Your task to perform on an android device: turn off data saver in the chrome app Image 0: 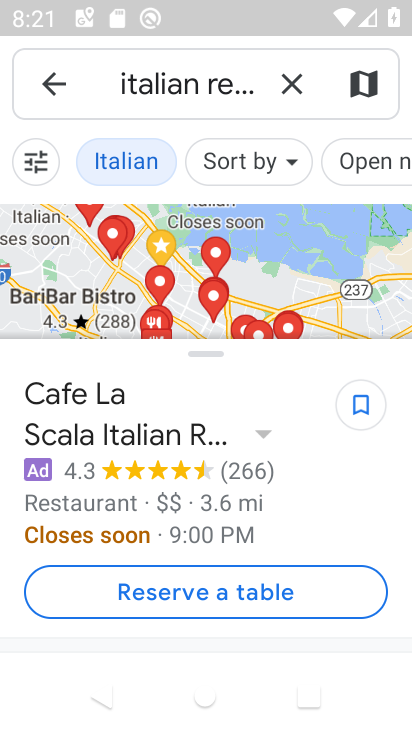
Step 0: press home button
Your task to perform on an android device: turn off data saver in the chrome app Image 1: 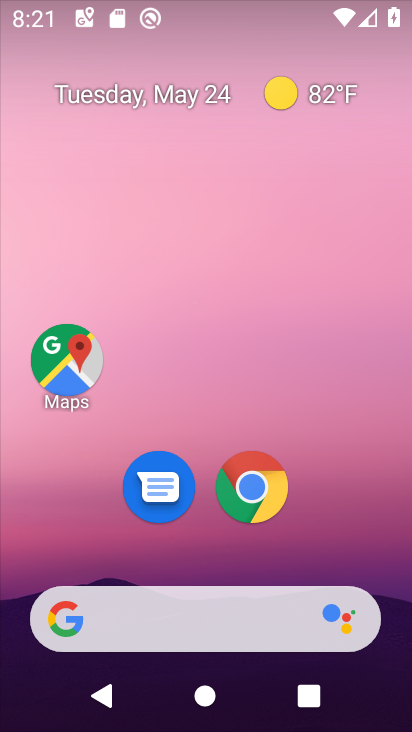
Step 1: drag from (393, 522) to (364, 174)
Your task to perform on an android device: turn off data saver in the chrome app Image 2: 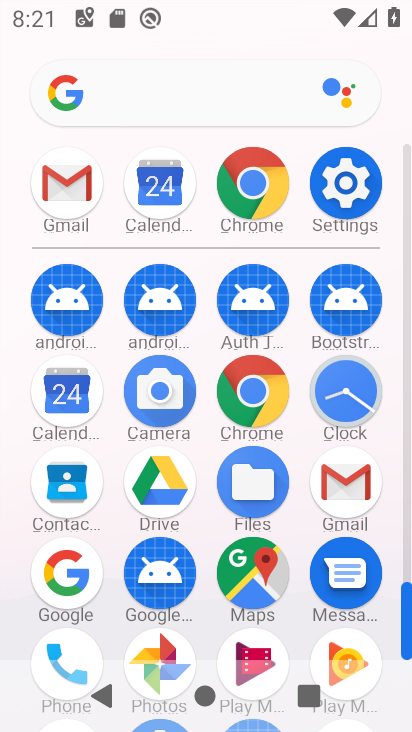
Step 2: click (250, 191)
Your task to perform on an android device: turn off data saver in the chrome app Image 3: 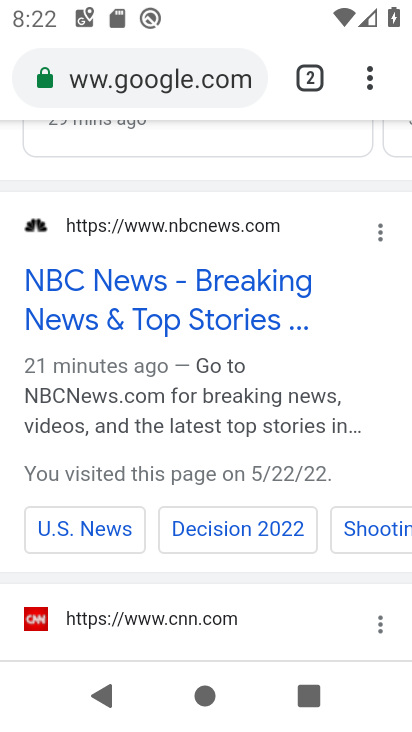
Step 3: drag from (388, 80) to (178, 542)
Your task to perform on an android device: turn off data saver in the chrome app Image 4: 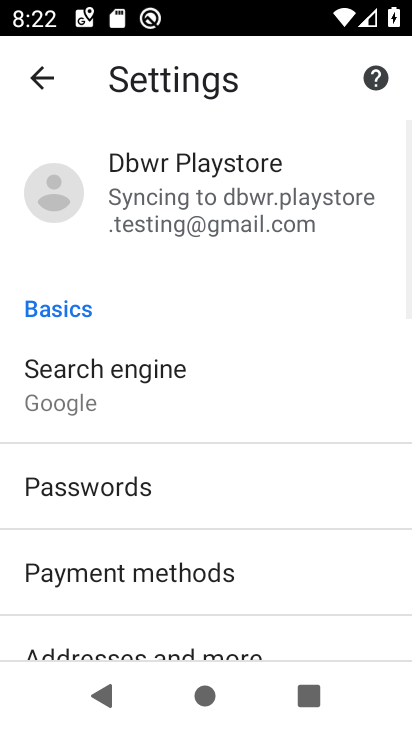
Step 4: drag from (309, 606) to (267, 214)
Your task to perform on an android device: turn off data saver in the chrome app Image 5: 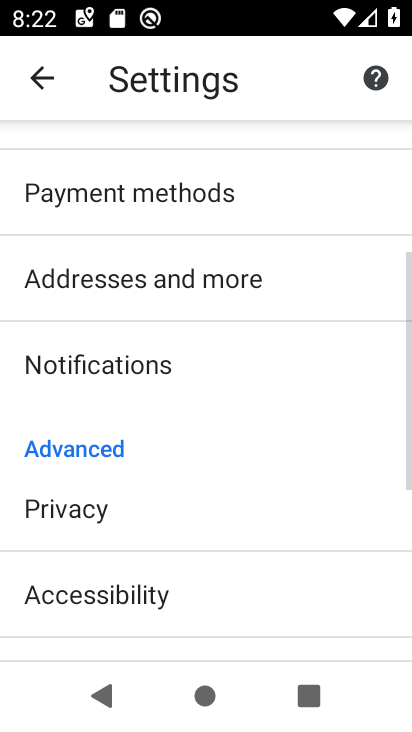
Step 5: drag from (266, 559) to (299, 288)
Your task to perform on an android device: turn off data saver in the chrome app Image 6: 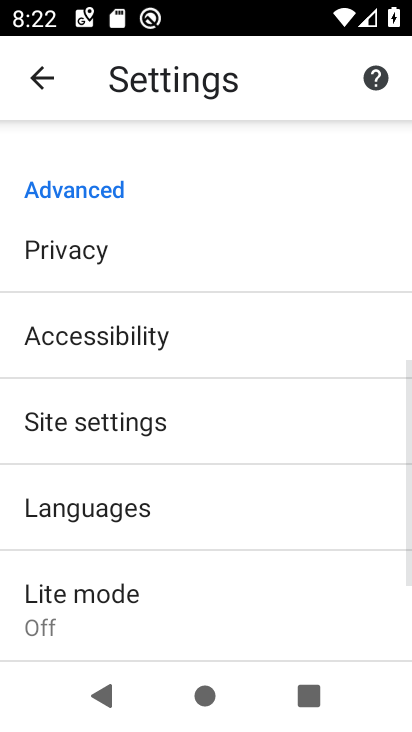
Step 6: drag from (311, 535) to (339, 235)
Your task to perform on an android device: turn off data saver in the chrome app Image 7: 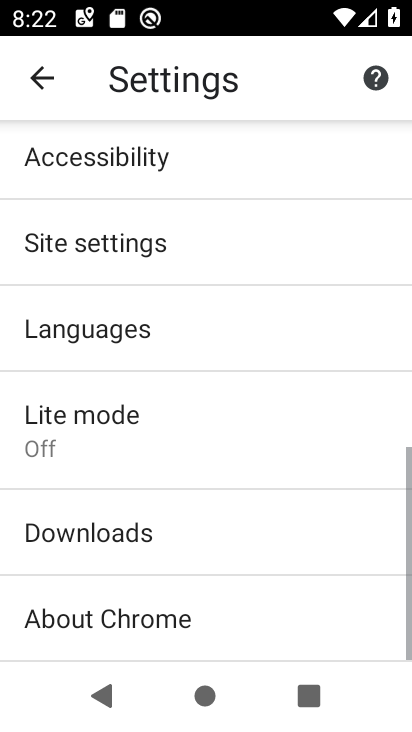
Step 7: drag from (301, 588) to (366, 248)
Your task to perform on an android device: turn off data saver in the chrome app Image 8: 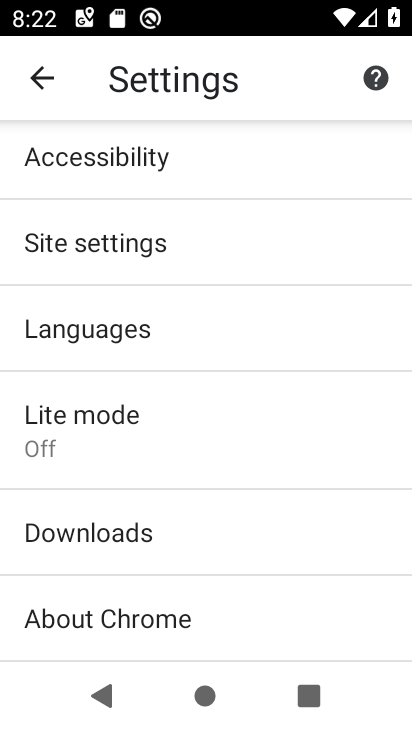
Step 8: click (92, 433)
Your task to perform on an android device: turn off data saver in the chrome app Image 9: 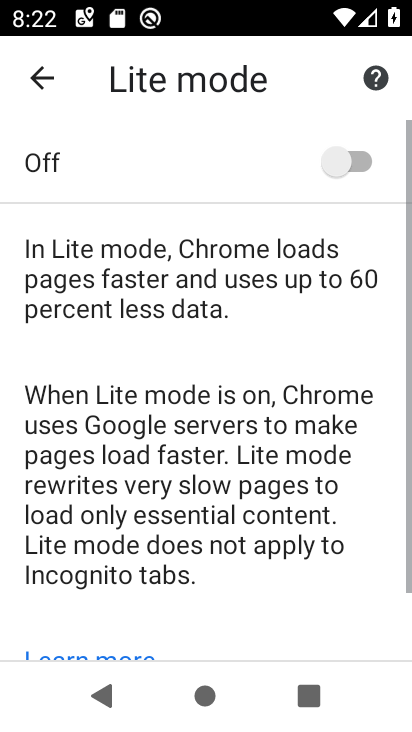
Step 9: task complete